Your task to perform on an android device: Open location settings Image 0: 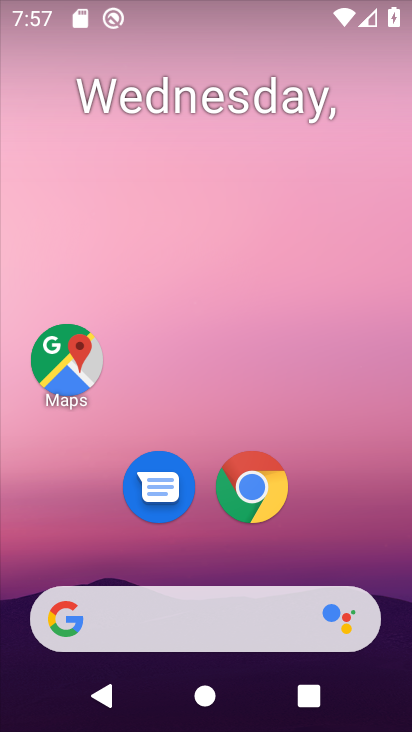
Step 0: drag from (323, 520) to (286, 48)
Your task to perform on an android device: Open location settings Image 1: 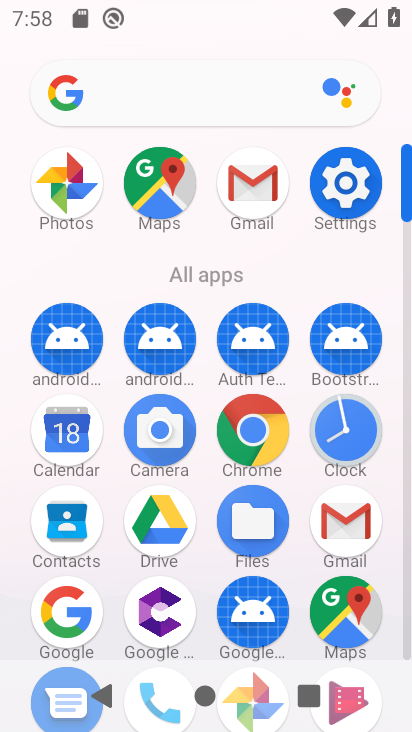
Step 1: drag from (105, 500) to (108, 270)
Your task to perform on an android device: Open location settings Image 2: 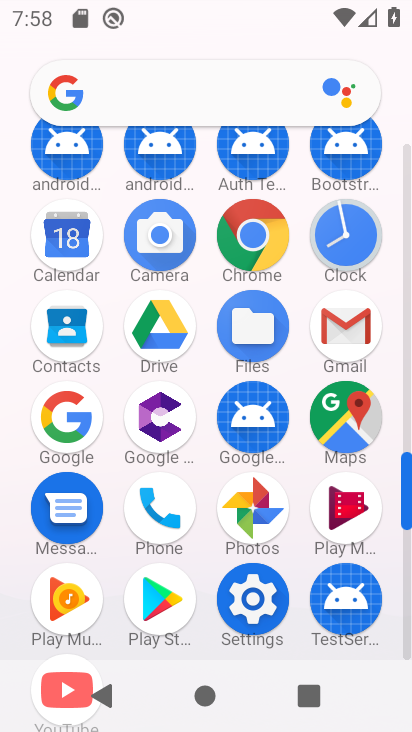
Step 2: click (251, 598)
Your task to perform on an android device: Open location settings Image 3: 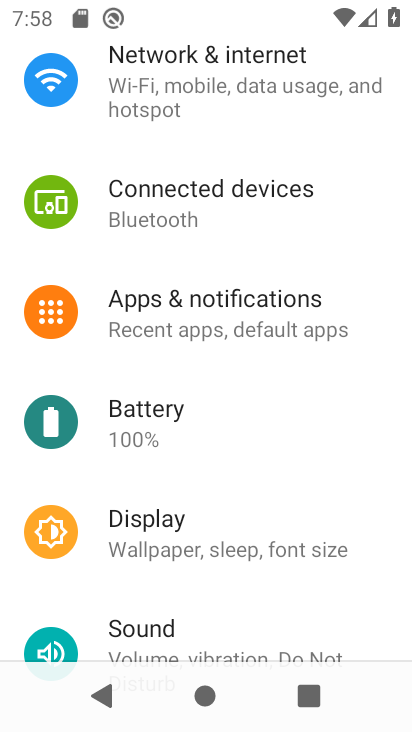
Step 3: task complete